Your task to perform on an android device: turn on notifications settings in the gmail app Image 0: 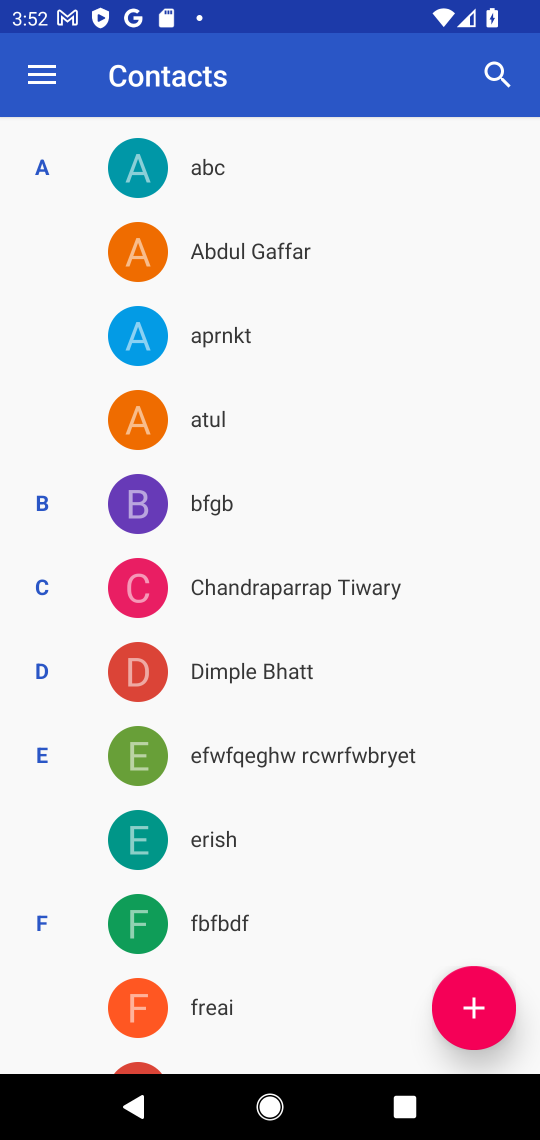
Step 0: press home button
Your task to perform on an android device: turn on notifications settings in the gmail app Image 1: 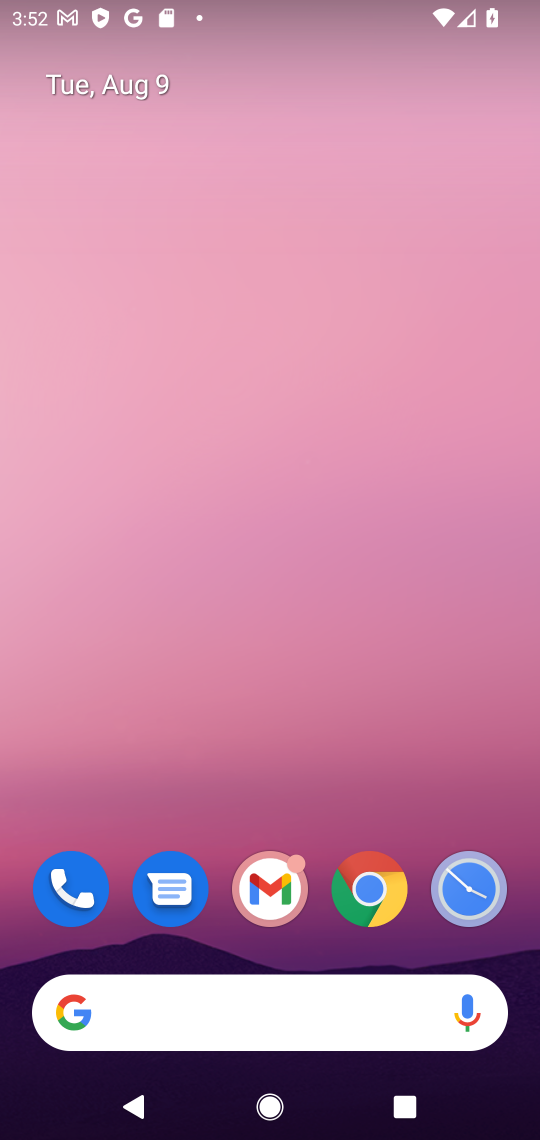
Step 1: click (282, 880)
Your task to perform on an android device: turn on notifications settings in the gmail app Image 2: 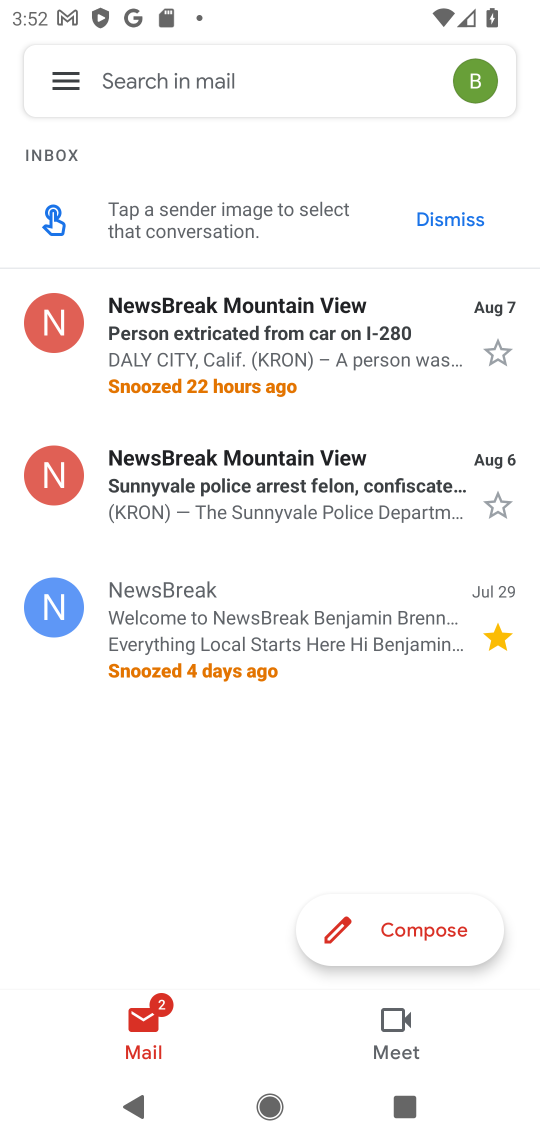
Step 2: click (71, 80)
Your task to perform on an android device: turn on notifications settings in the gmail app Image 3: 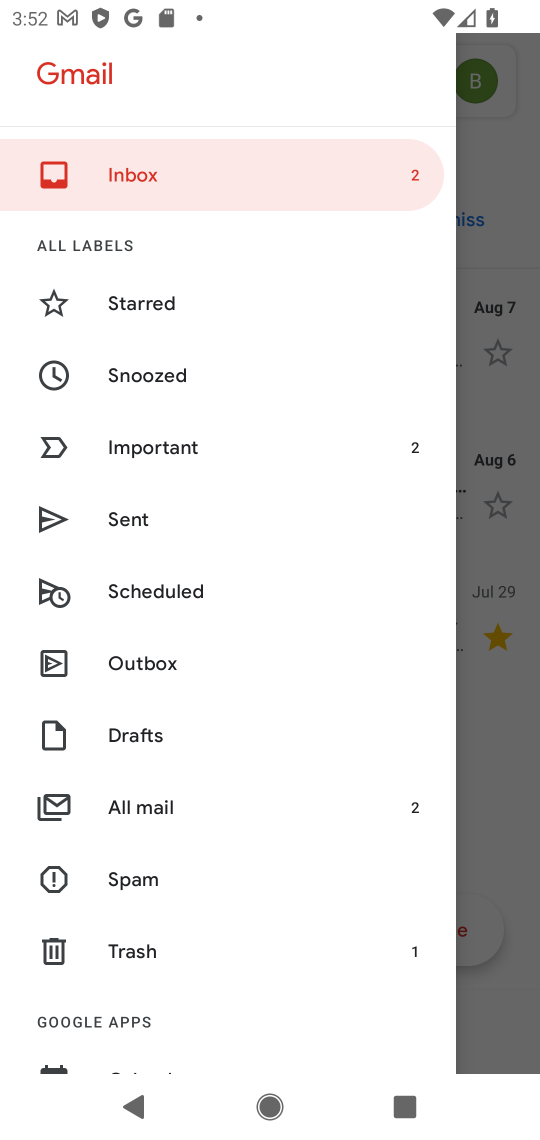
Step 3: drag from (224, 851) to (332, 56)
Your task to perform on an android device: turn on notifications settings in the gmail app Image 4: 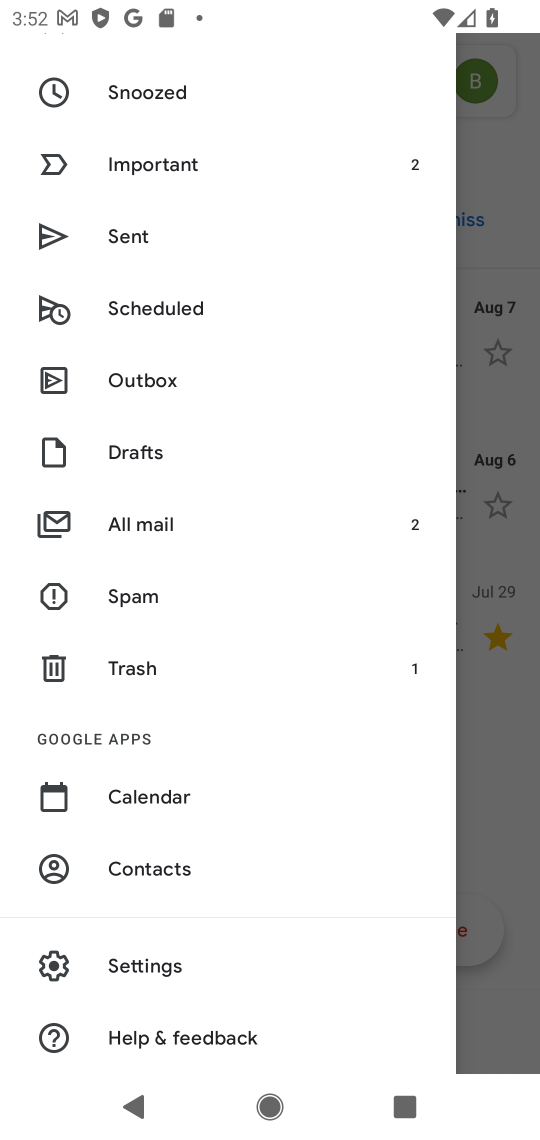
Step 4: click (164, 962)
Your task to perform on an android device: turn on notifications settings in the gmail app Image 5: 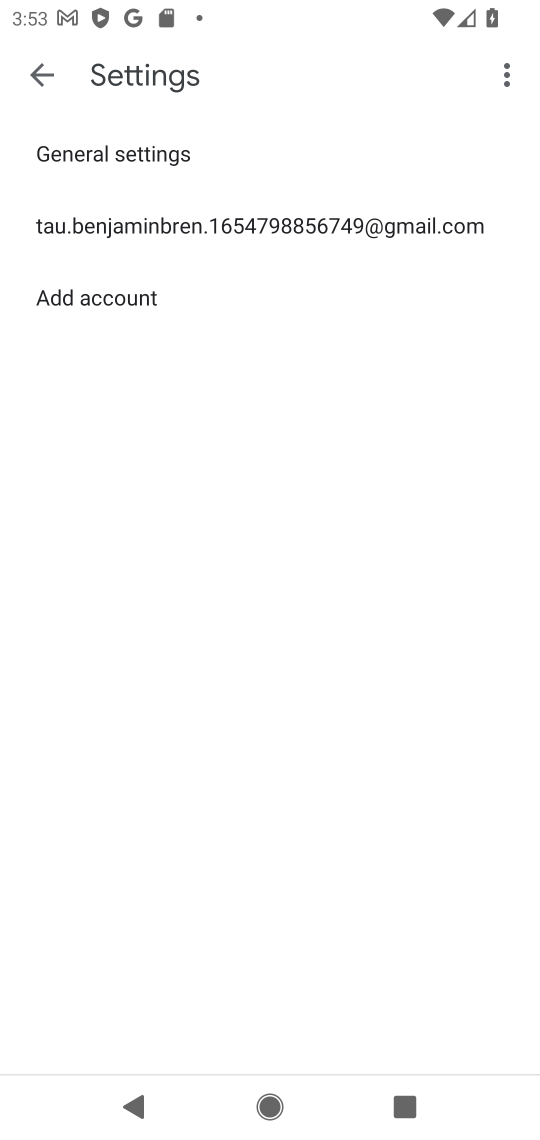
Step 5: click (352, 234)
Your task to perform on an android device: turn on notifications settings in the gmail app Image 6: 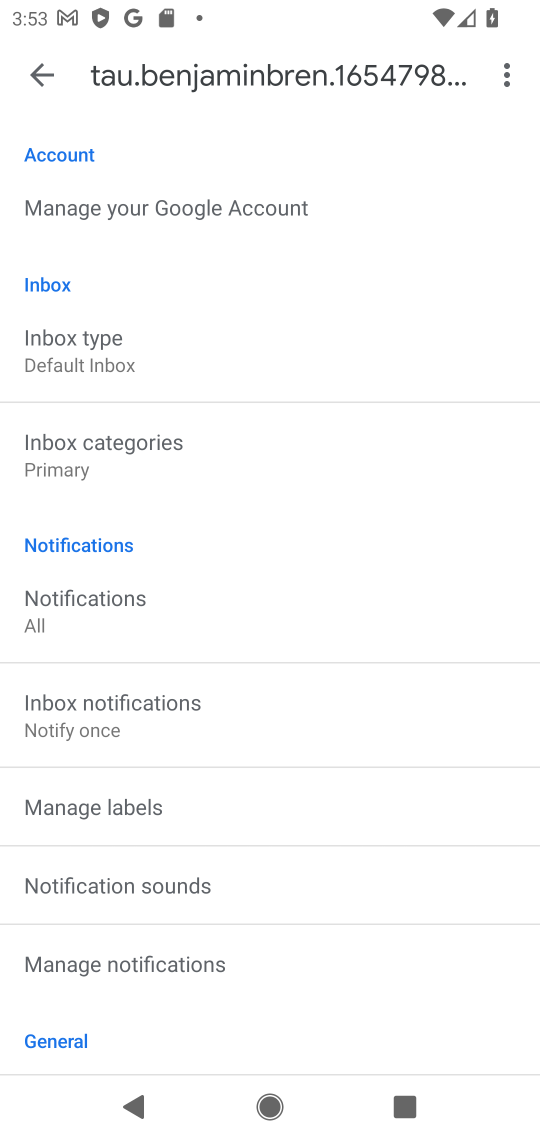
Step 6: click (218, 964)
Your task to perform on an android device: turn on notifications settings in the gmail app Image 7: 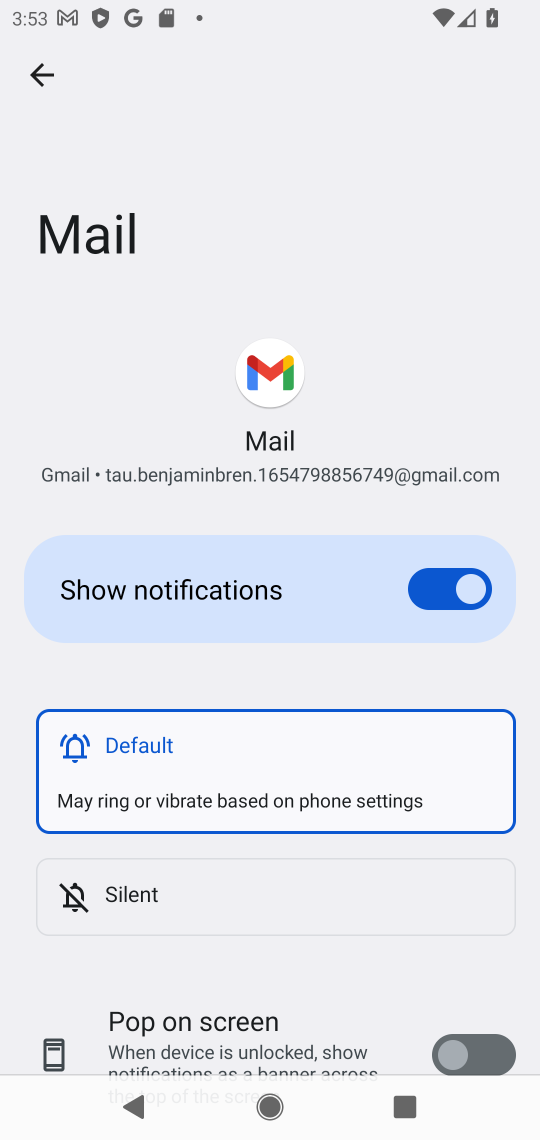
Step 7: task complete